Your task to perform on an android device: change alarm snooze length Image 0: 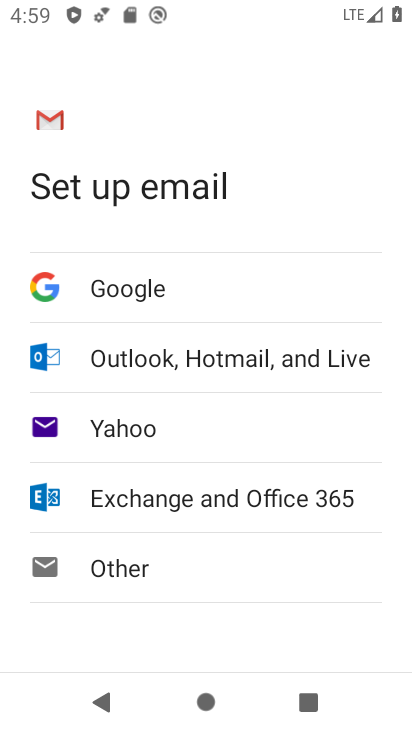
Step 0: drag from (199, 582) to (190, 405)
Your task to perform on an android device: change alarm snooze length Image 1: 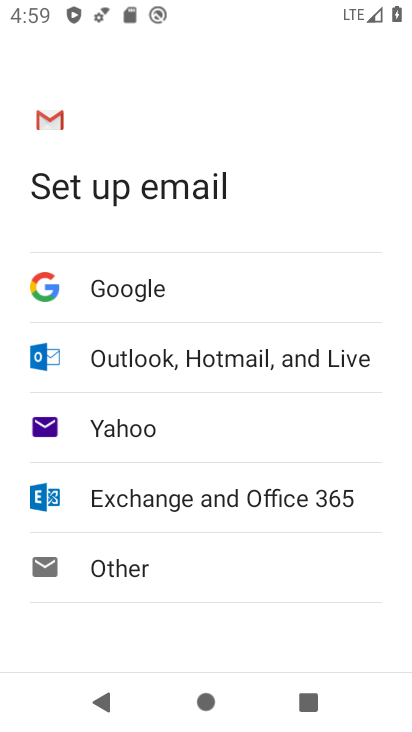
Step 1: press home button
Your task to perform on an android device: change alarm snooze length Image 2: 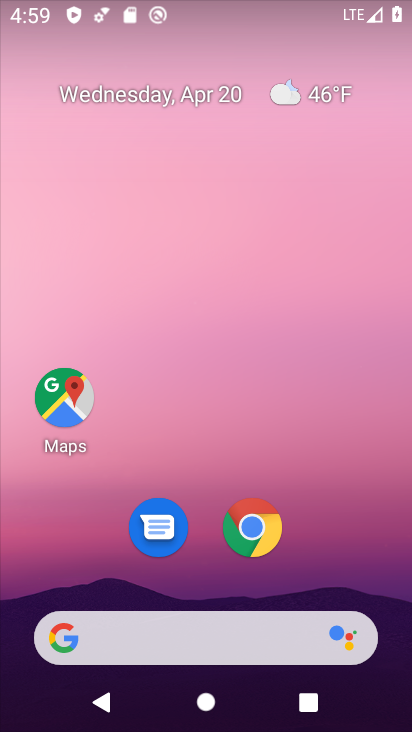
Step 2: drag from (324, 261) to (302, 62)
Your task to perform on an android device: change alarm snooze length Image 3: 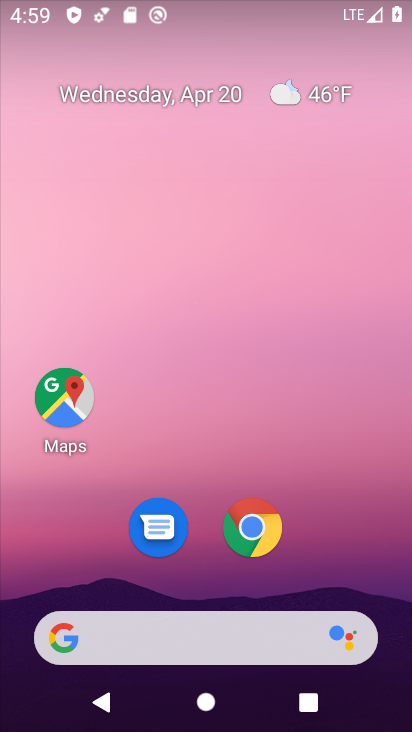
Step 3: drag from (326, 547) to (223, 1)
Your task to perform on an android device: change alarm snooze length Image 4: 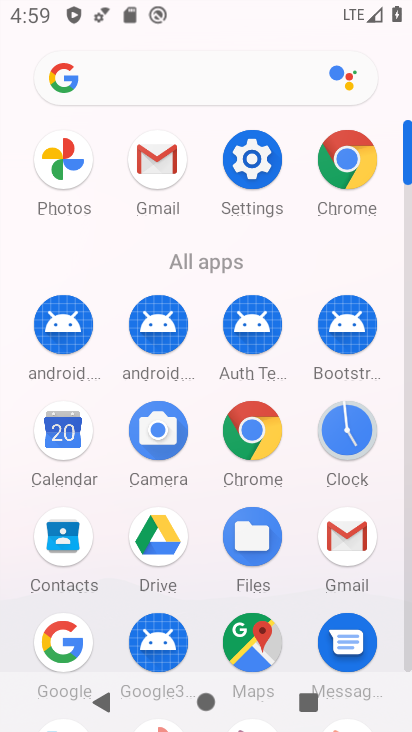
Step 4: click (355, 429)
Your task to perform on an android device: change alarm snooze length Image 5: 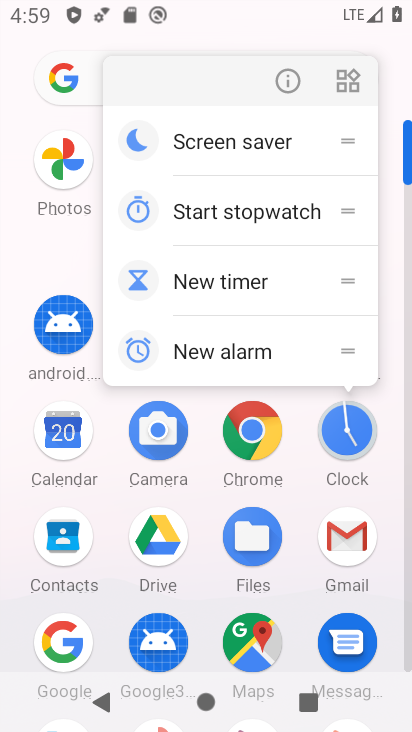
Step 5: click (348, 433)
Your task to perform on an android device: change alarm snooze length Image 6: 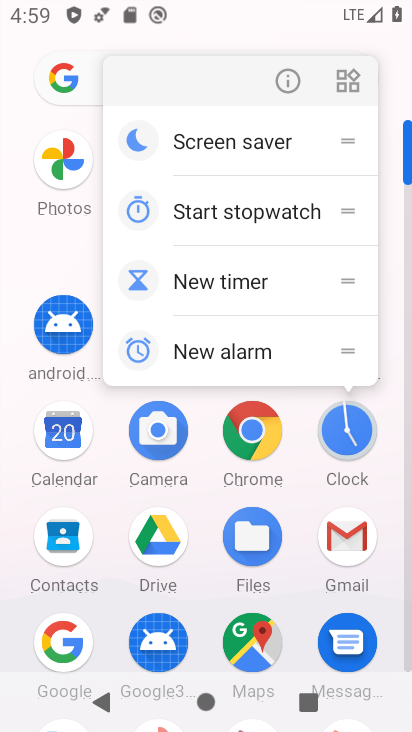
Step 6: click (343, 440)
Your task to perform on an android device: change alarm snooze length Image 7: 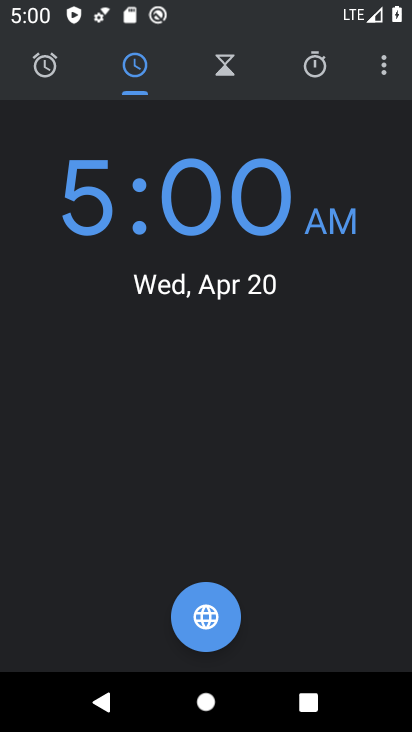
Step 7: click (383, 64)
Your task to perform on an android device: change alarm snooze length Image 8: 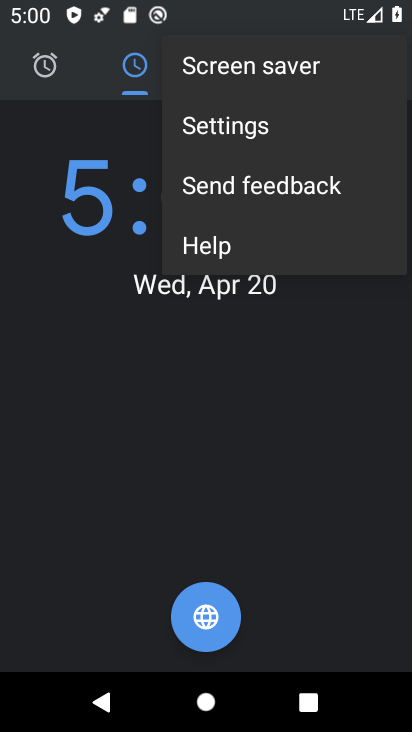
Step 8: click (251, 125)
Your task to perform on an android device: change alarm snooze length Image 9: 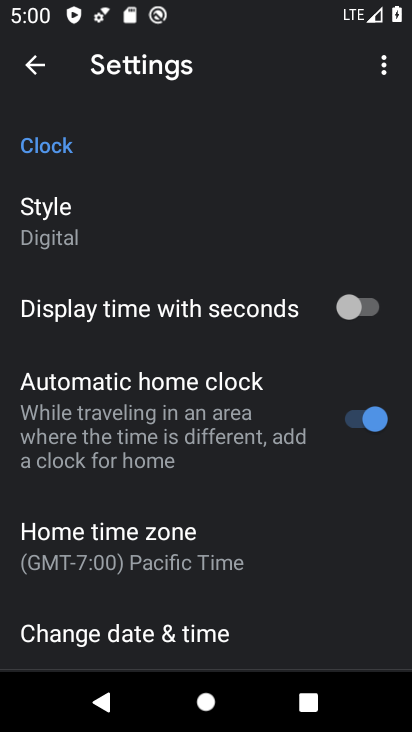
Step 9: drag from (301, 484) to (291, 167)
Your task to perform on an android device: change alarm snooze length Image 10: 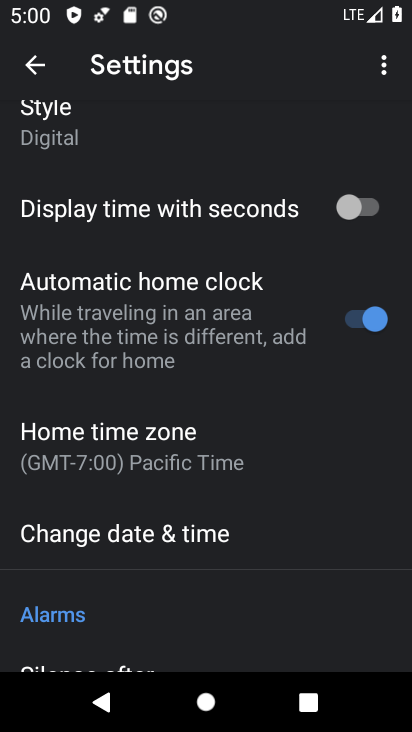
Step 10: drag from (232, 556) to (264, 221)
Your task to perform on an android device: change alarm snooze length Image 11: 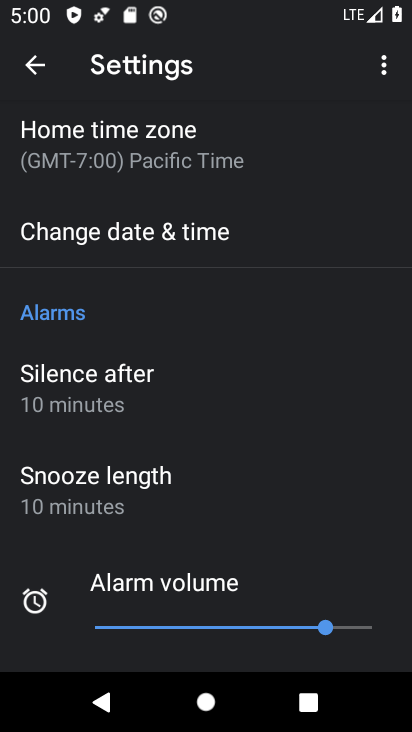
Step 11: click (203, 489)
Your task to perform on an android device: change alarm snooze length Image 12: 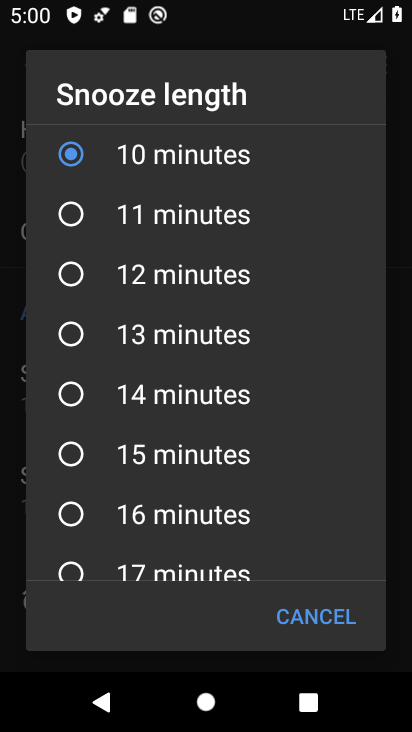
Step 12: click (175, 218)
Your task to perform on an android device: change alarm snooze length Image 13: 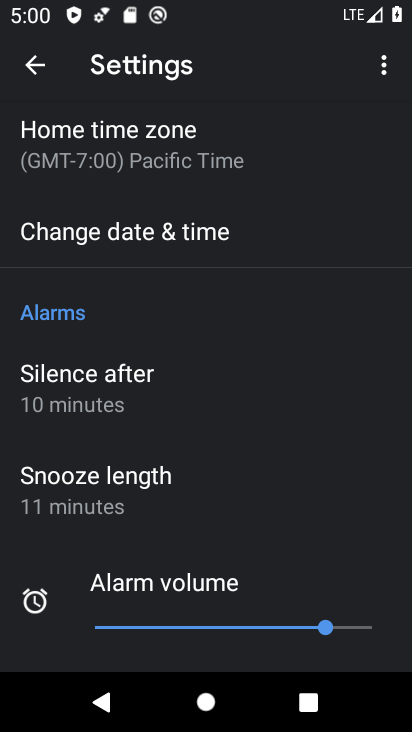
Step 13: task complete